Your task to perform on an android device: Open internet settings Image 0: 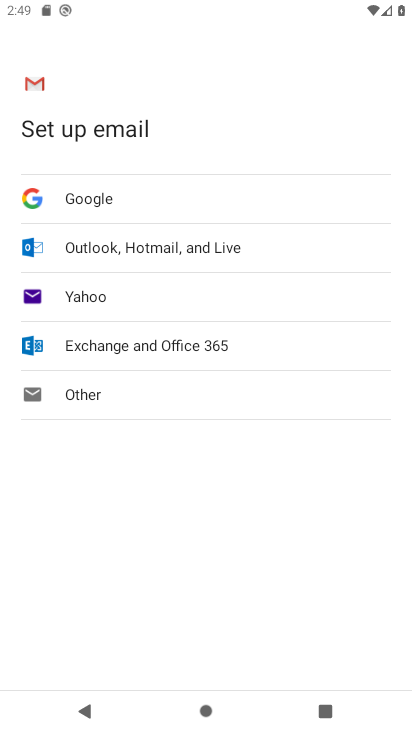
Step 0: press home button
Your task to perform on an android device: Open internet settings Image 1: 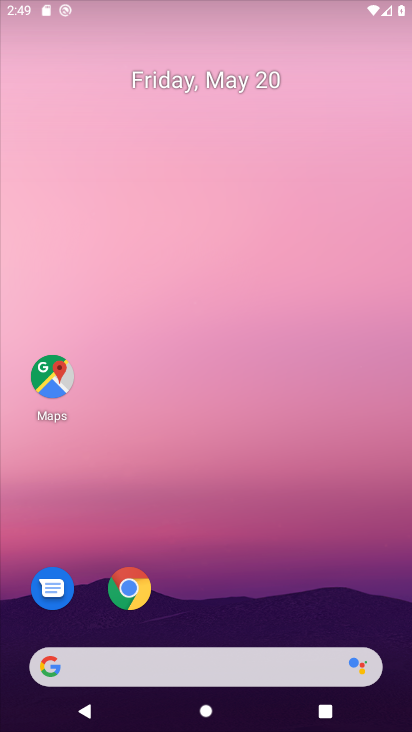
Step 1: drag from (306, 490) to (273, 41)
Your task to perform on an android device: Open internet settings Image 2: 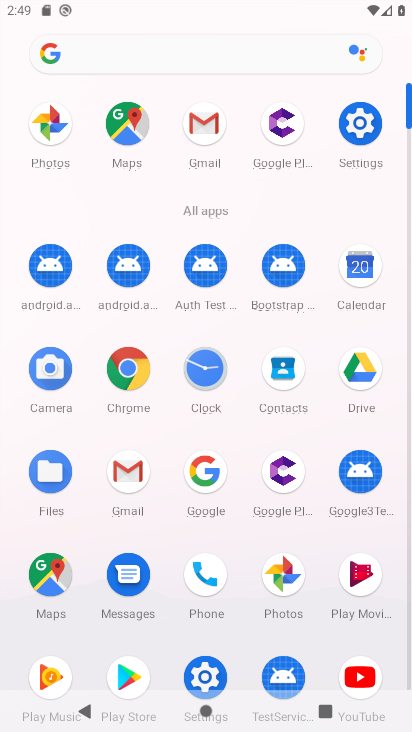
Step 2: click (354, 120)
Your task to perform on an android device: Open internet settings Image 3: 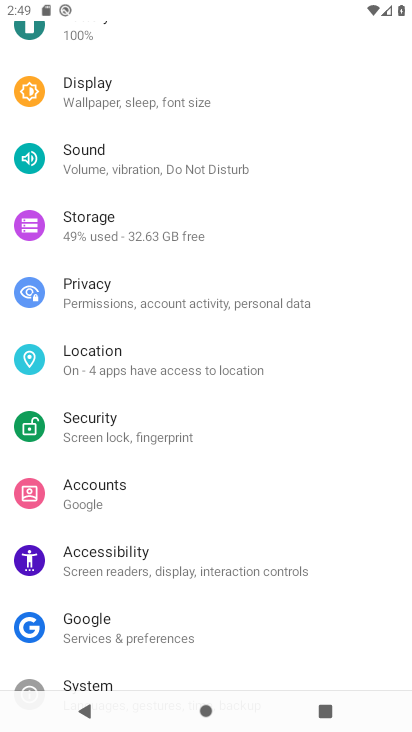
Step 3: drag from (213, 104) to (206, 542)
Your task to perform on an android device: Open internet settings Image 4: 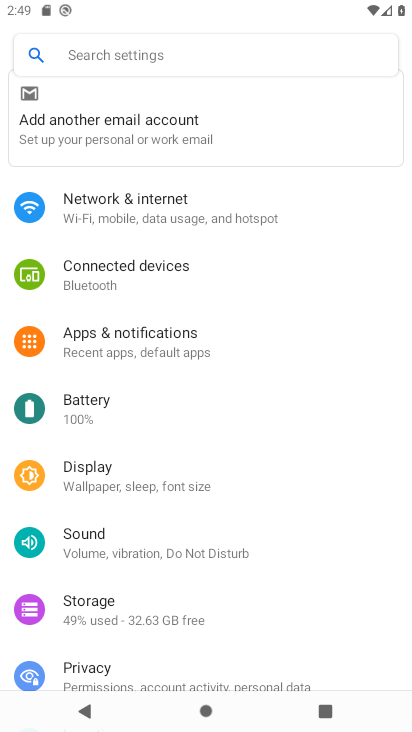
Step 4: click (208, 199)
Your task to perform on an android device: Open internet settings Image 5: 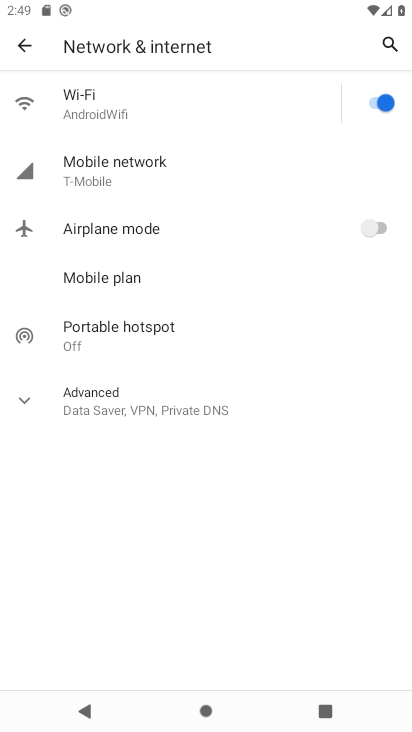
Step 5: click (225, 427)
Your task to perform on an android device: Open internet settings Image 6: 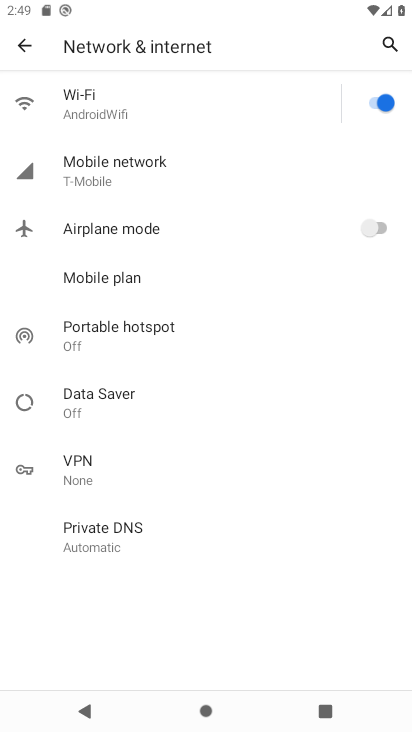
Step 6: task complete